Your task to perform on an android device: snooze an email in the gmail app Image 0: 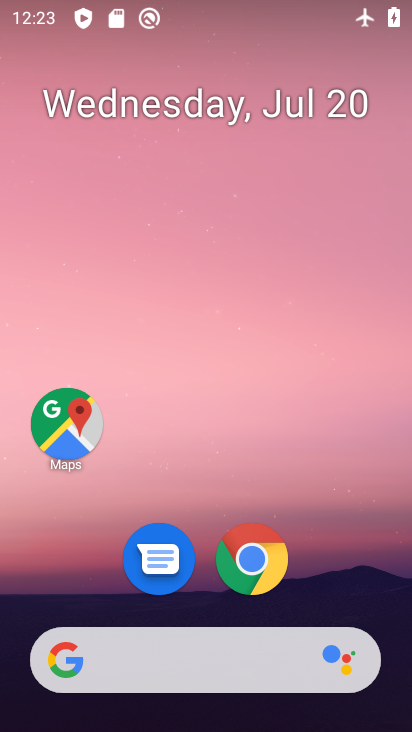
Step 0: drag from (367, 571) to (374, 108)
Your task to perform on an android device: snooze an email in the gmail app Image 1: 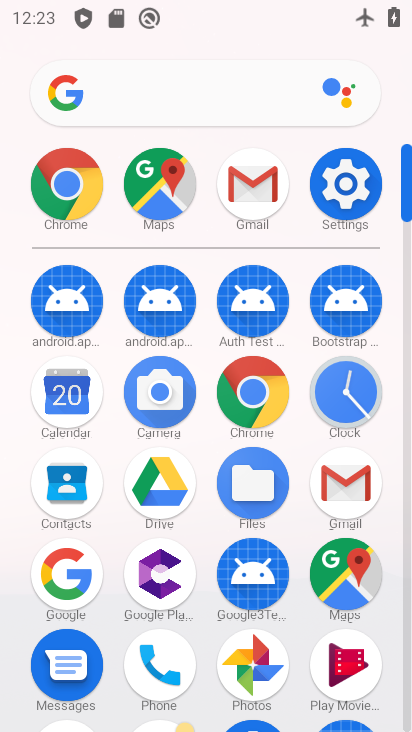
Step 1: click (354, 477)
Your task to perform on an android device: snooze an email in the gmail app Image 2: 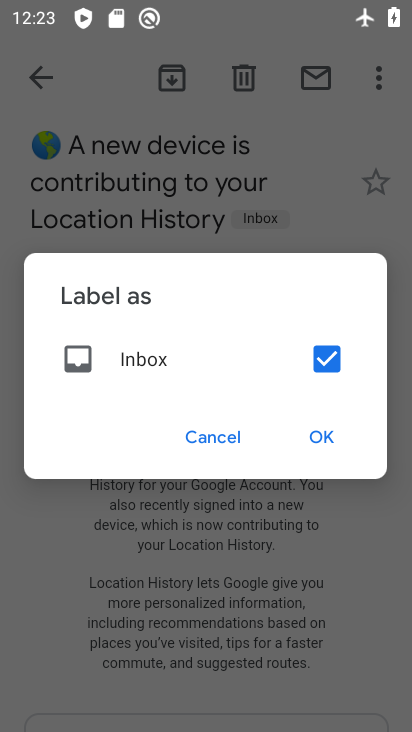
Step 2: click (223, 442)
Your task to perform on an android device: snooze an email in the gmail app Image 3: 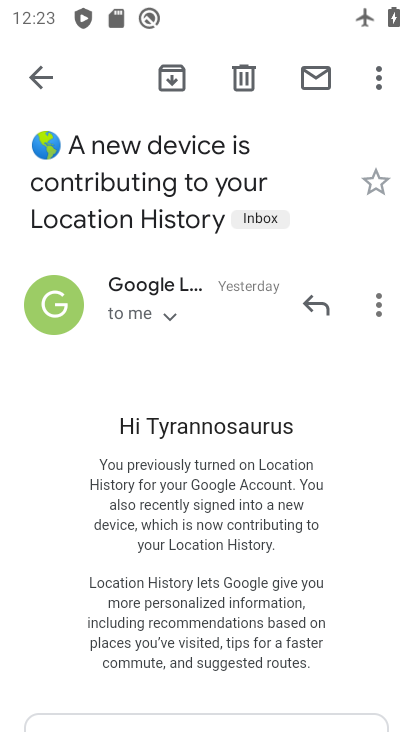
Step 3: press back button
Your task to perform on an android device: snooze an email in the gmail app Image 4: 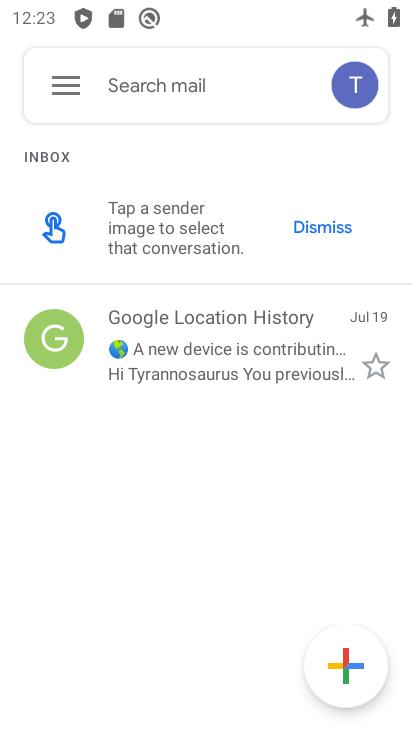
Step 4: click (74, 85)
Your task to perform on an android device: snooze an email in the gmail app Image 5: 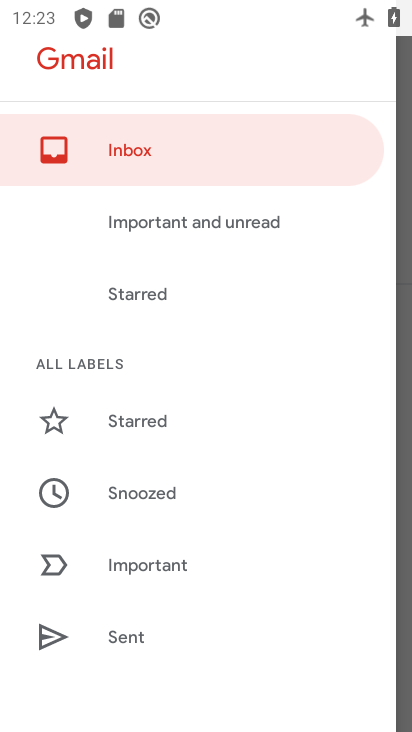
Step 5: drag from (282, 435) to (284, 293)
Your task to perform on an android device: snooze an email in the gmail app Image 6: 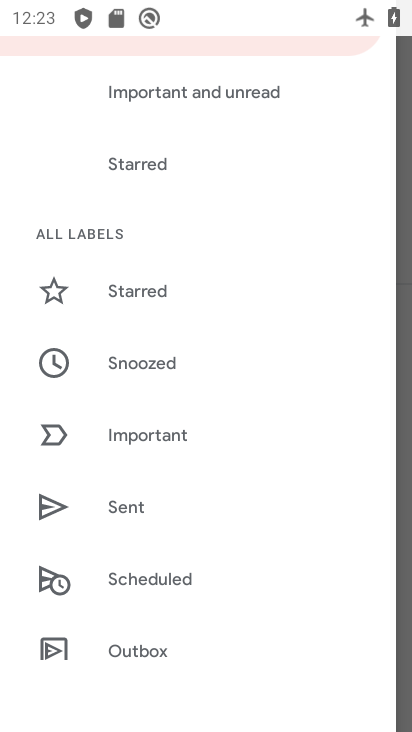
Step 6: drag from (269, 459) to (270, 330)
Your task to perform on an android device: snooze an email in the gmail app Image 7: 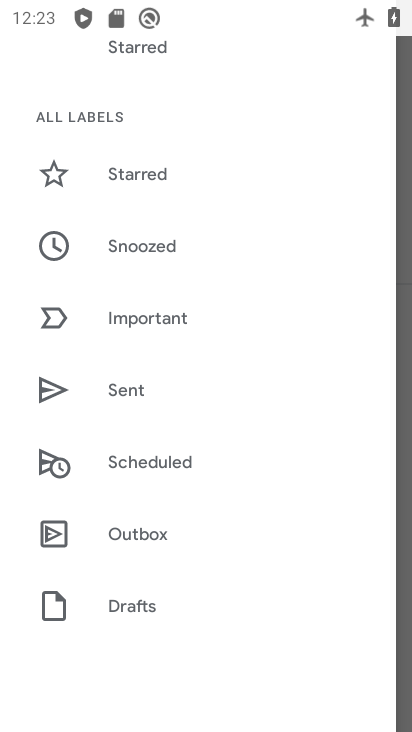
Step 7: click (214, 264)
Your task to perform on an android device: snooze an email in the gmail app Image 8: 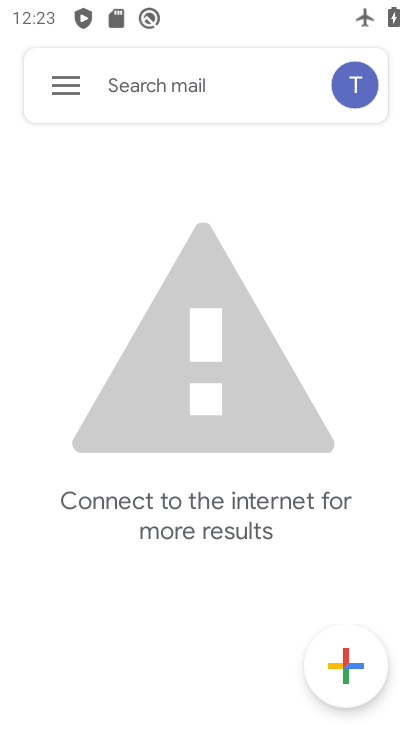
Step 8: task complete